Your task to perform on an android device: See recent photos Image 0: 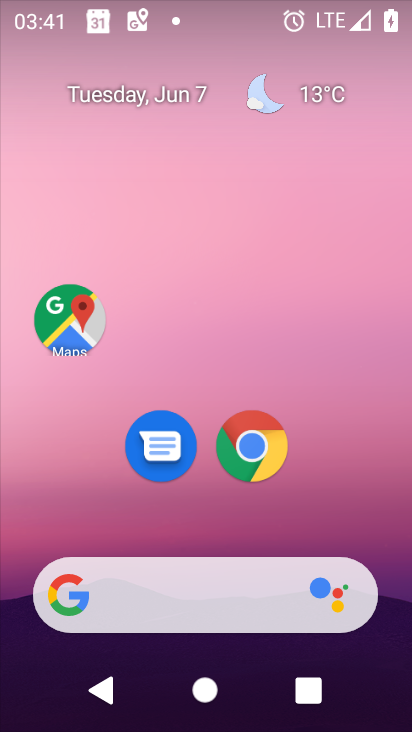
Step 0: drag from (172, 619) to (394, 1)
Your task to perform on an android device: See recent photos Image 1: 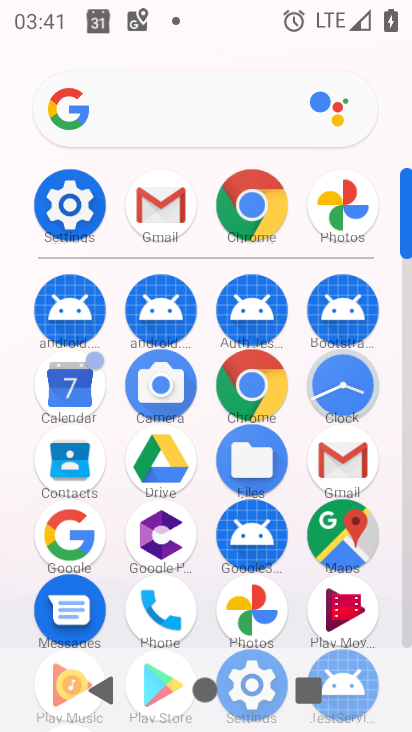
Step 1: click (357, 205)
Your task to perform on an android device: See recent photos Image 2: 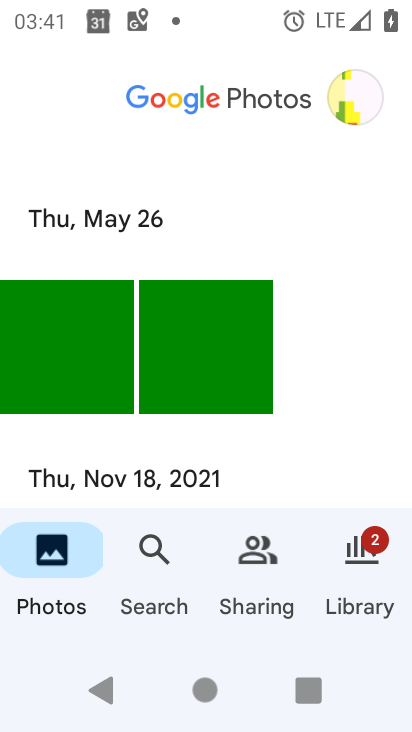
Step 2: task complete